Your task to perform on an android device: Open my contact list Image 0: 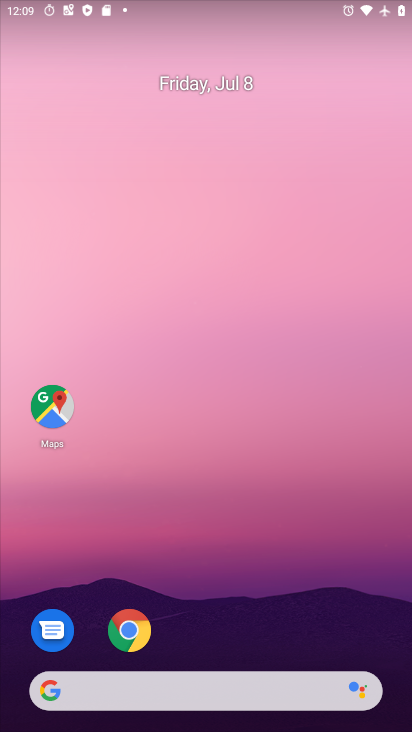
Step 0: drag from (199, 628) to (219, 313)
Your task to perform on an android device: Open my contact list Image 1: 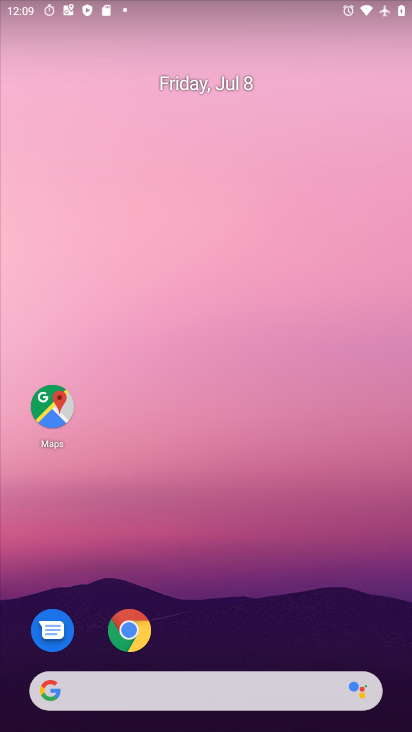
Step 1: drag from (225, 632) to (170, 15)
Your task to perform on an android device: Open my contact list Image 2: 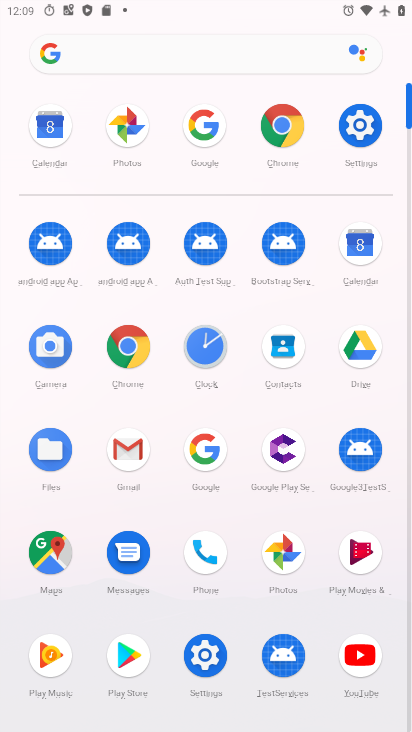
Step 2: click (280, 372)
Your task to perform on an android device: Open my contact list Image 3: 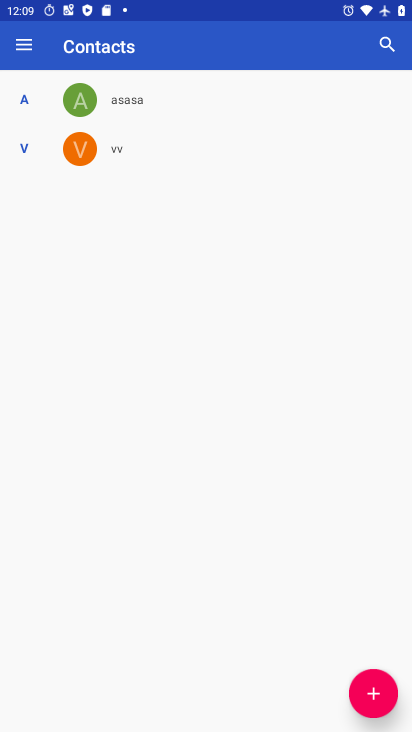
Step 3: task complete